Your task to perform on an android device: open device folders in google photos Image 0: 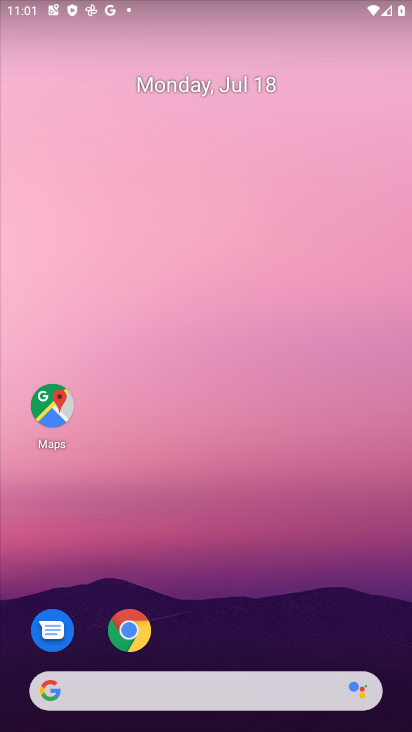
Step 0: drag from (377, 621) to (197, 52)
Your task to perform on an android device: open device folders in google photos Image 1: 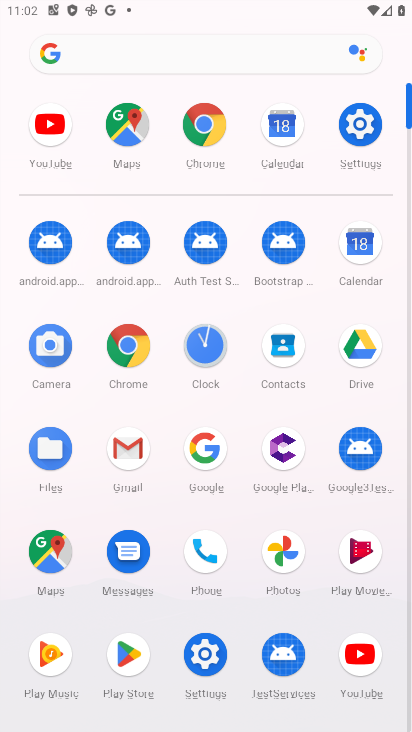
Step 1: click (277, 564)
Your task to perform on an android device: open device folders in google photos Image 2: 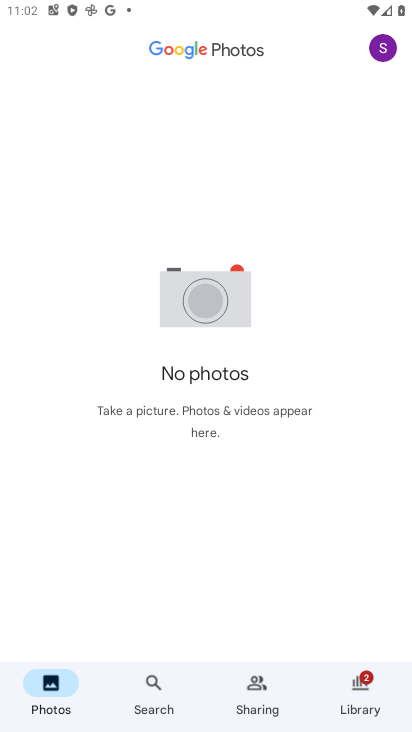
Step 2: task complete